Your task to perform on an android device: toggle pop-ups in chrome Image 0: 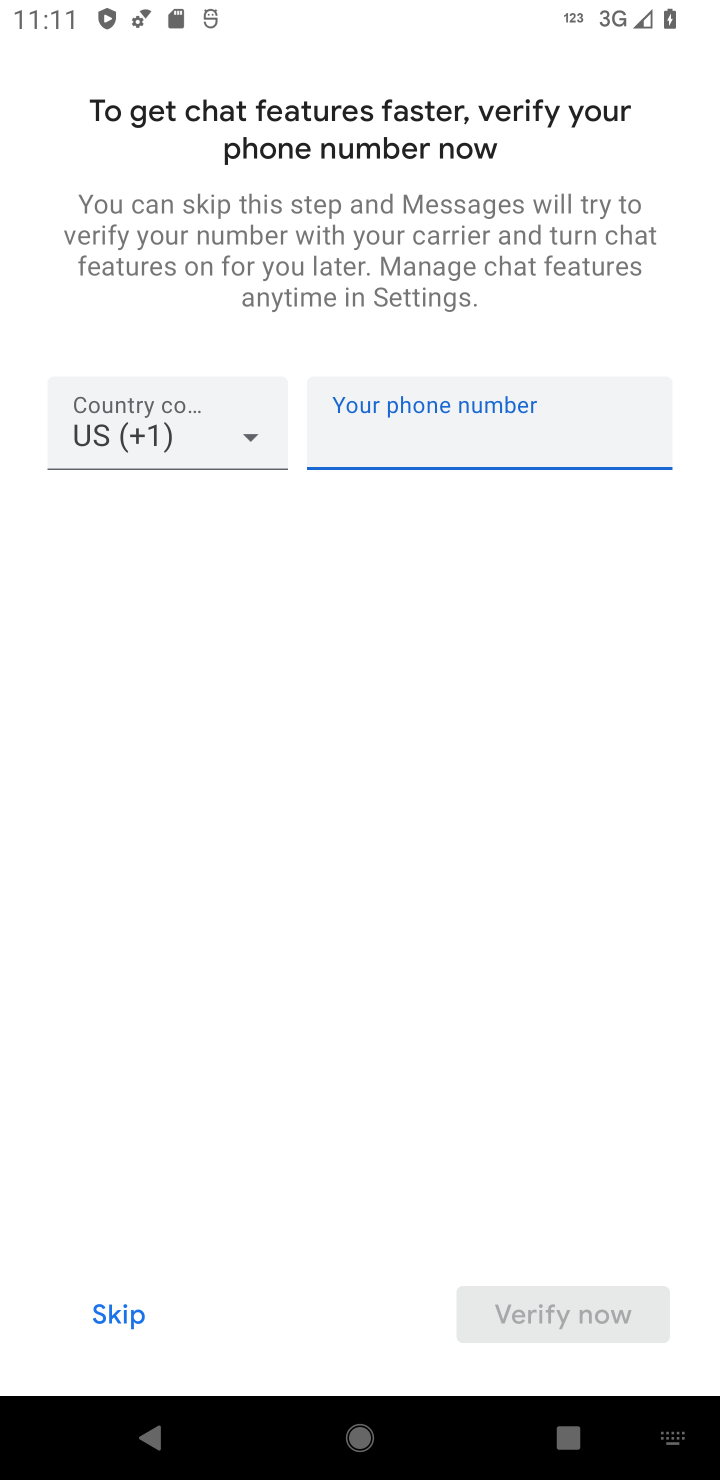
Step 0: press home button
Your task to perform on an android device: toggle pop-ups in chrome Image 1: 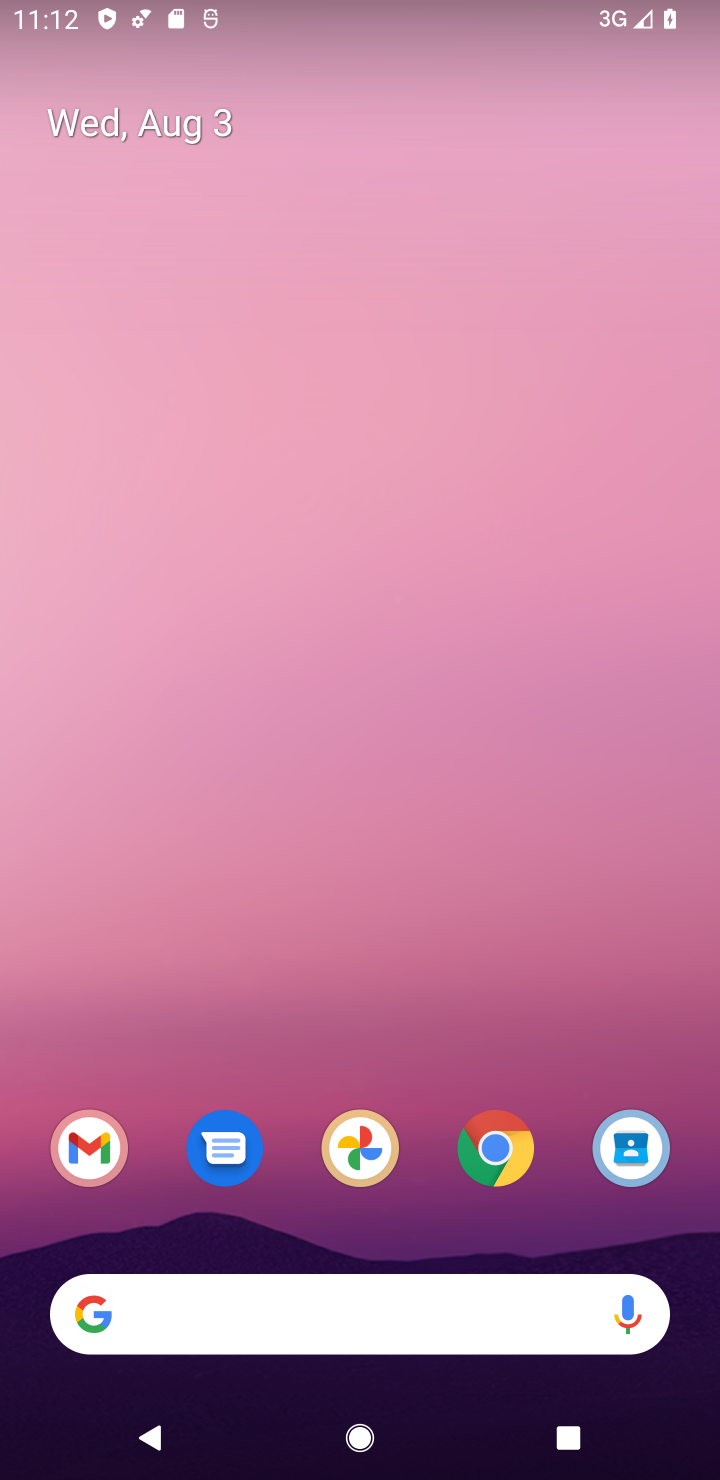
Step 1: drag from (279, 1059) to (407, 203)
Your task to perform on an android device: toggle pop-ups in chrome Image 2: 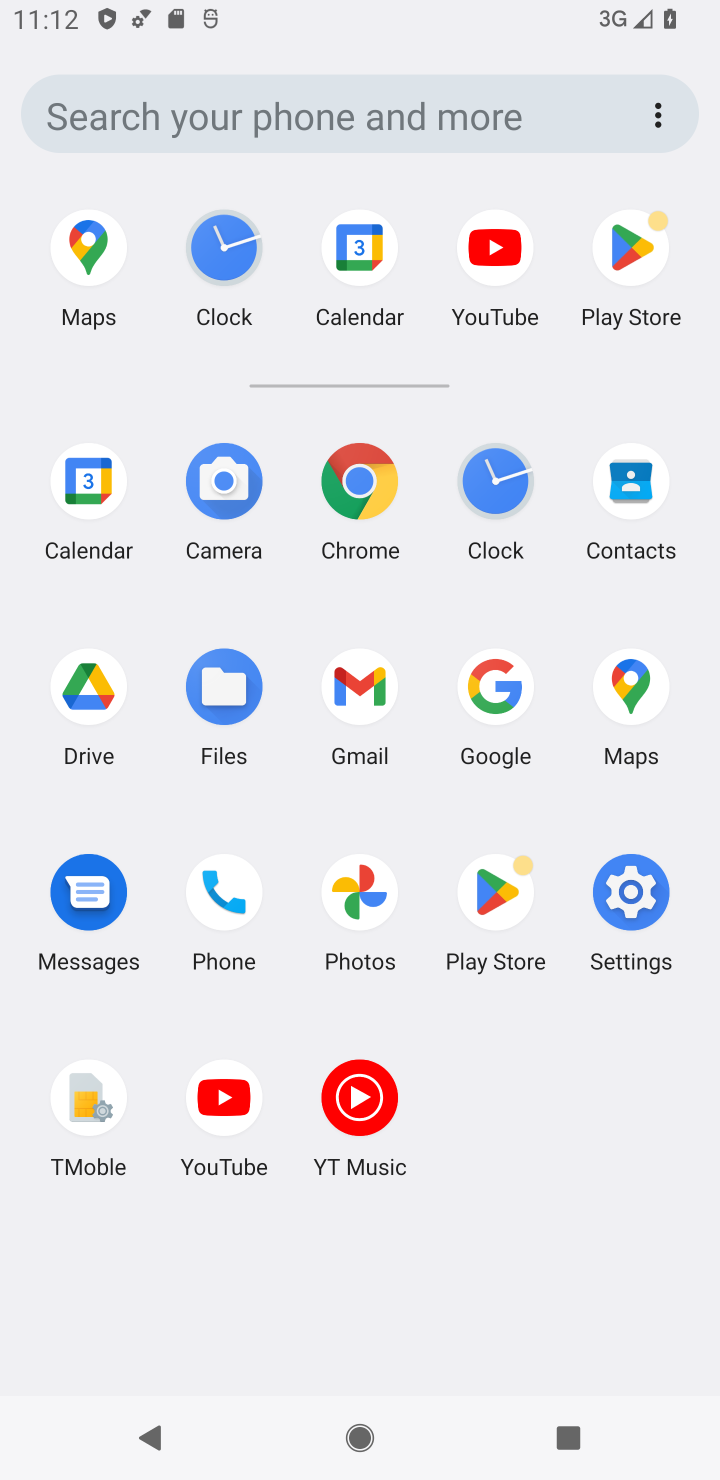
Step 2: click (367, 492)
Your task to perform on an android device: toggle pop-ups in chrome Image 3: 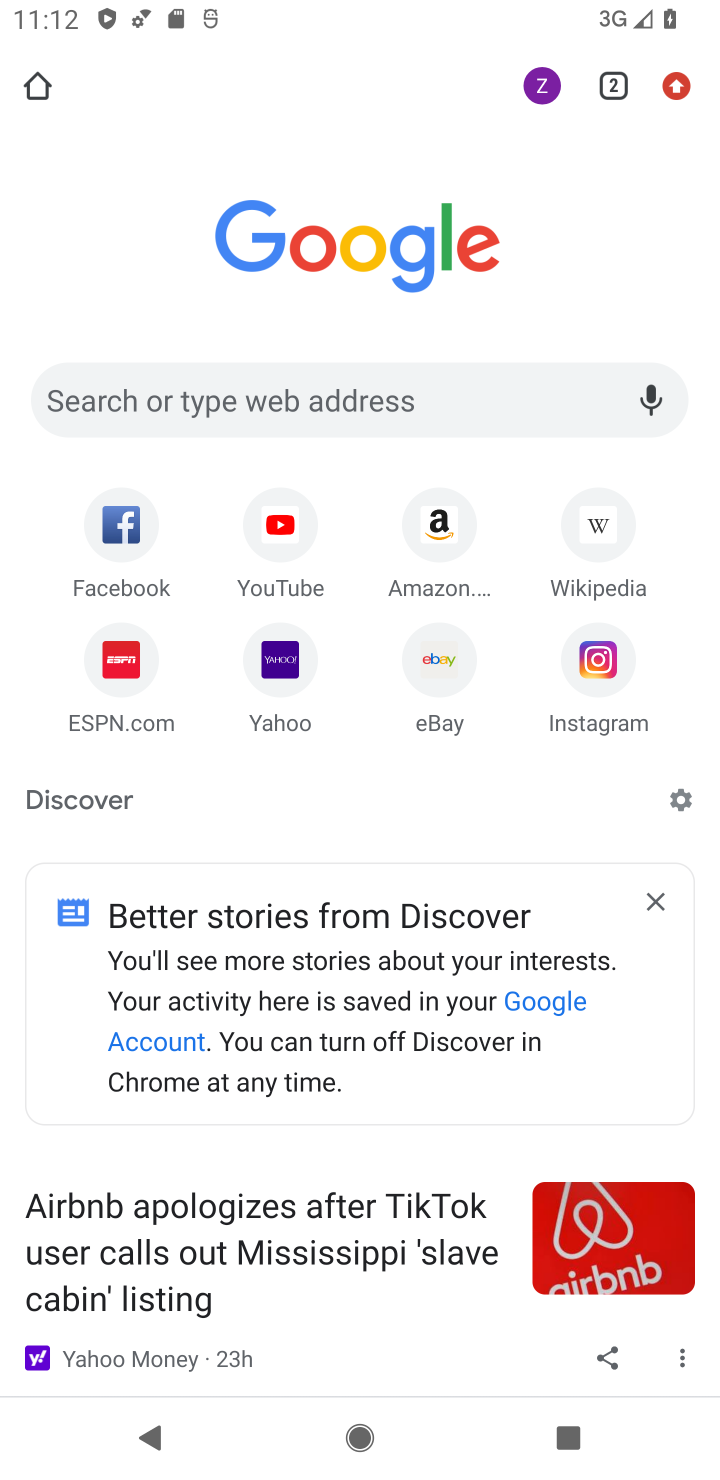
Step 3: click (664, 83)
Your task to perform on an android device: toggle pop-ups in chrome Image 4: 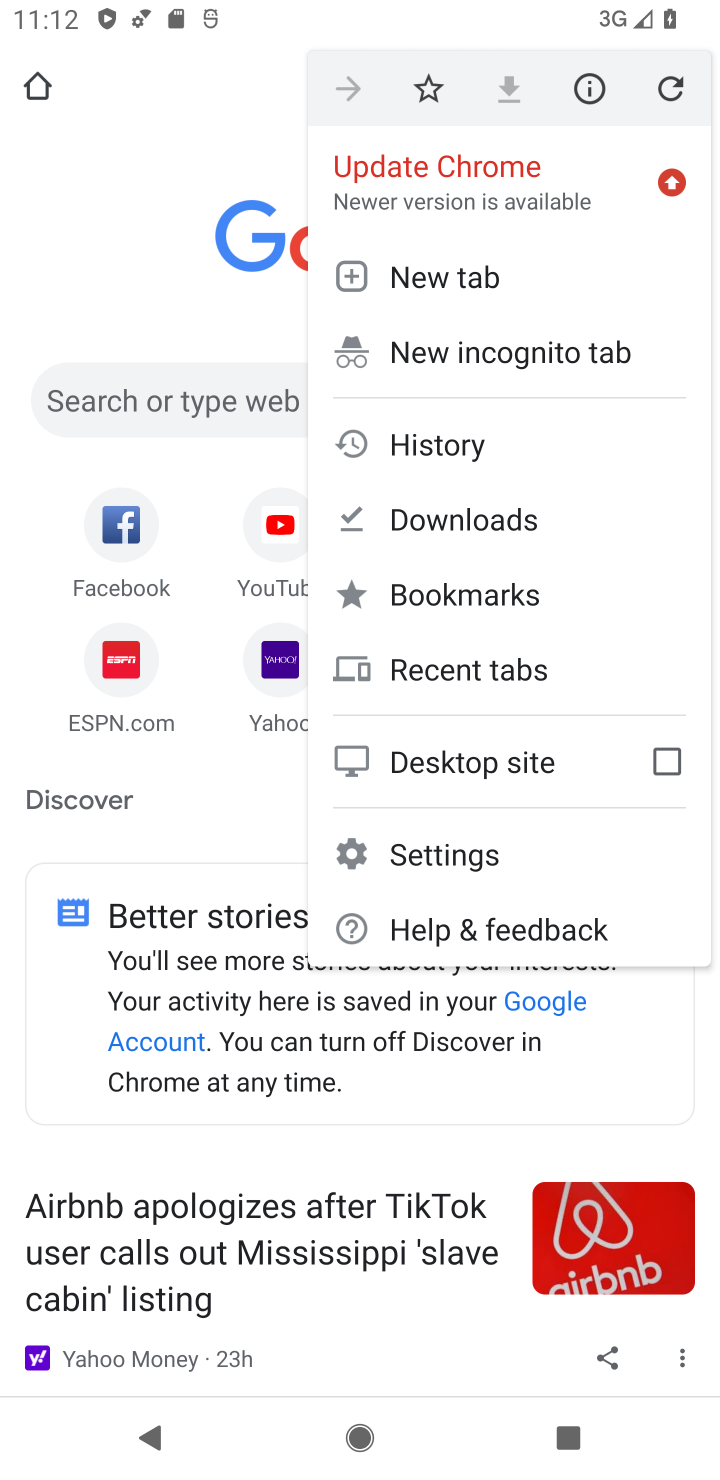
Step 4: task complete